Your task to perform on an android device: turn off data saver in the chrome app Image 0: 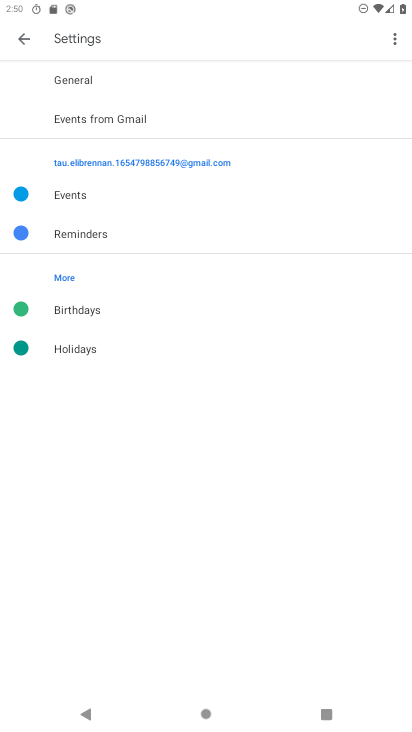
Step 0: press home button
Your task to perform on an android device: turn off data saver in the chrome app Image 1: 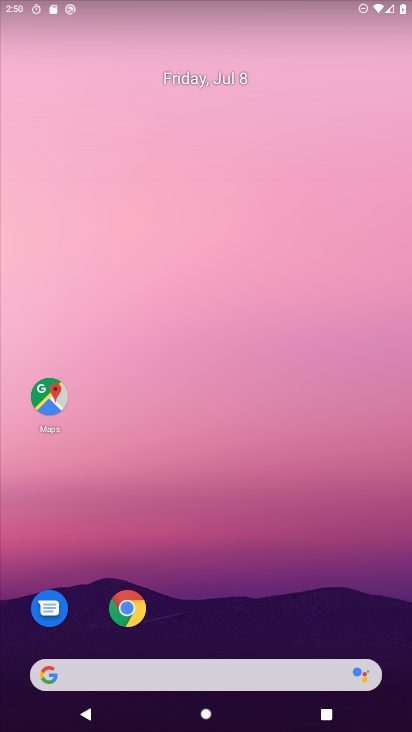
Step 1: click (127, 608)
Your task to perform on an android device: turn off data saver in the chrome app Image 2: 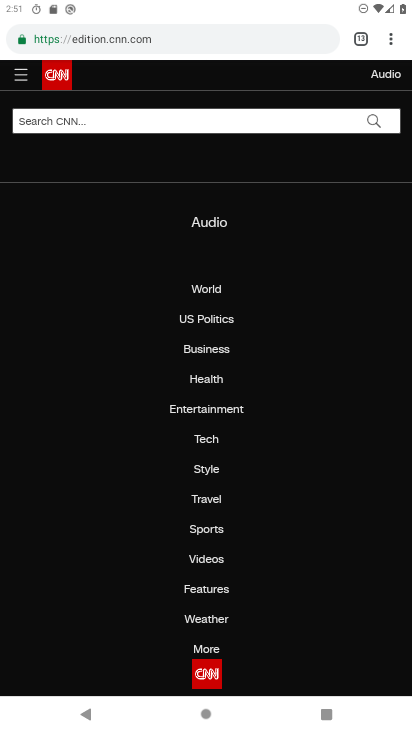
Step 2: click (391, 44)
Your task to perform on an android device: turn off data saver in the chrome app Image 3: 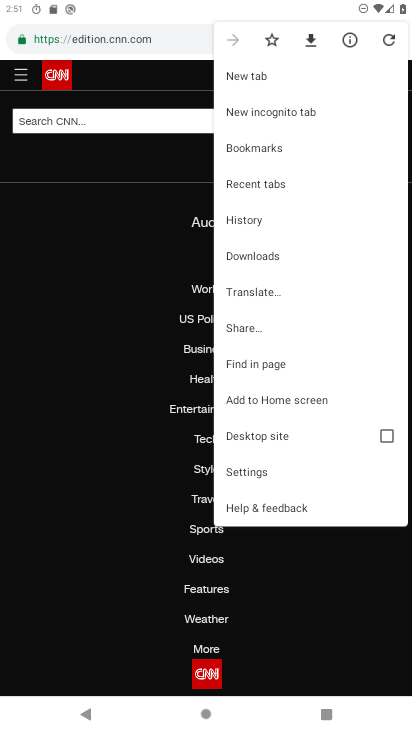
Step 3: click (253, 464)
Your task to perform on an android device: turn off data saver in the chrome app Image 4: 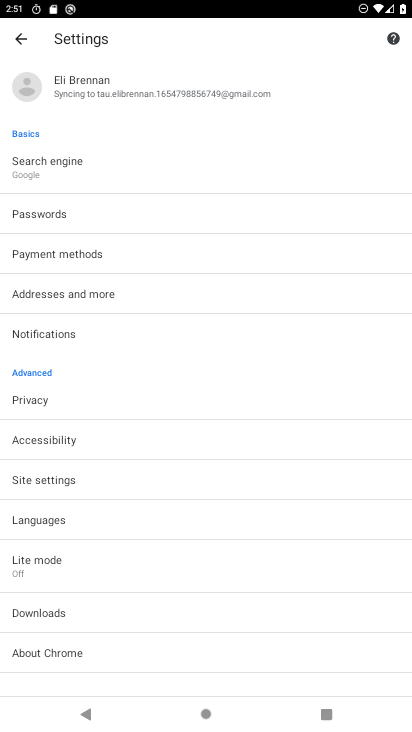
Step 4: click (36, 563)
Your task to perform on an android device: turn off data saver in the chrome app Image 5: 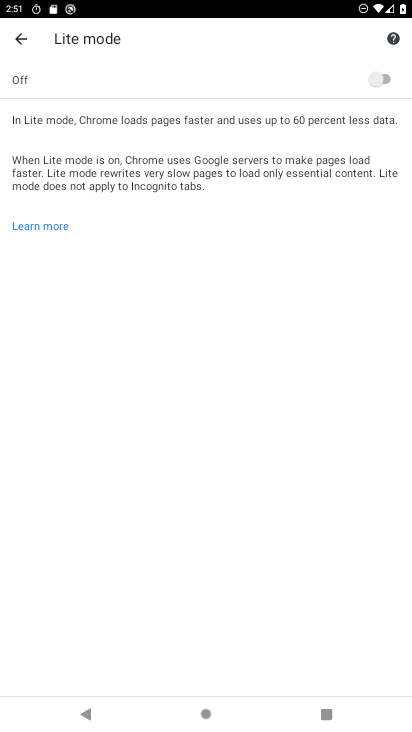
Step 5: task complete